Your task to perform on an android device: What's on my calendar today? Image 0: 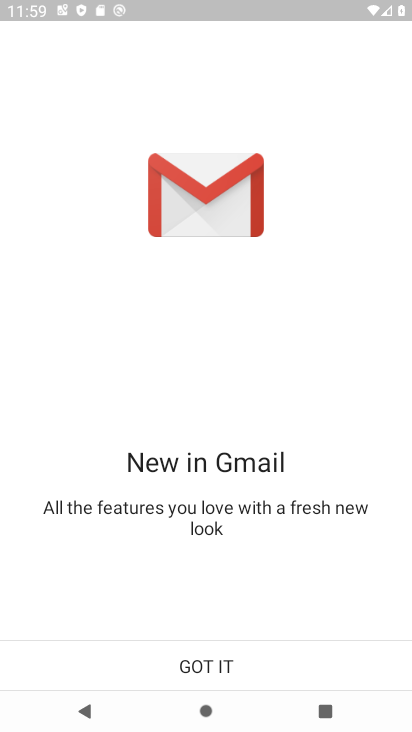
Step 0: press back button
Your task to perform on an android device: What's on my calendar today? Image 1: 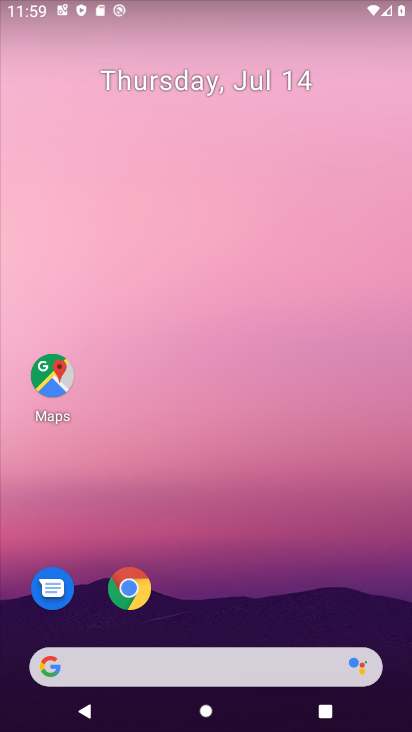
Step 1: drag from (256, 622) to (298, 17)
Your task to perform on an android device: What's on my calendar today? Image 2: 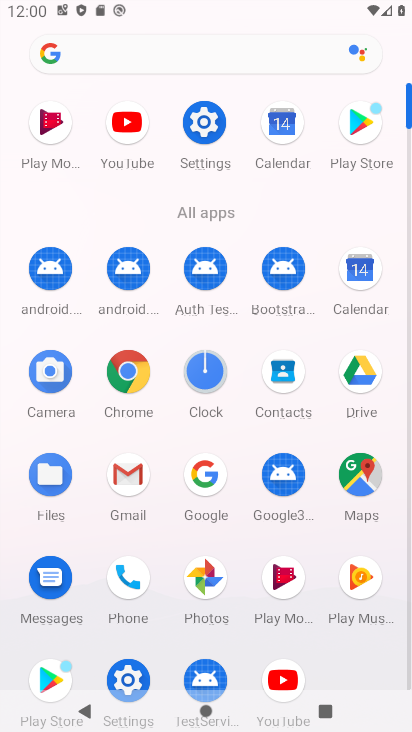
Step 2: click (355, 279)
Your task to perform on an android device: What's on my calendar today? Image 3: 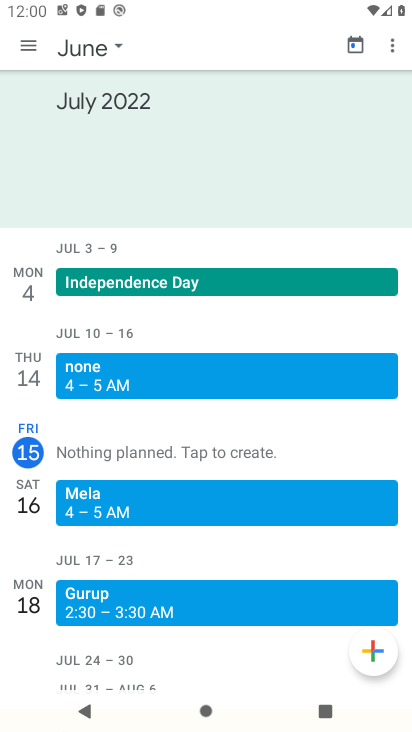
Step 3: task complete